Your task to perform on an android device: Search for Mexican restaurants on Maps Image 0: 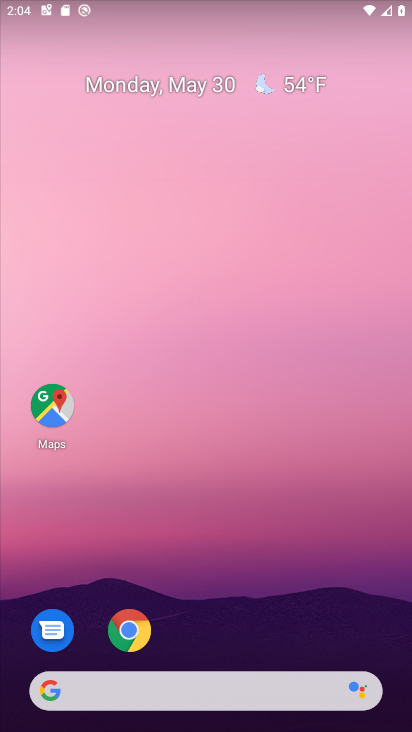
Step 0: press home button
Your task to perform on an android device: Search for Mexican restaurants on Maps Image 1: 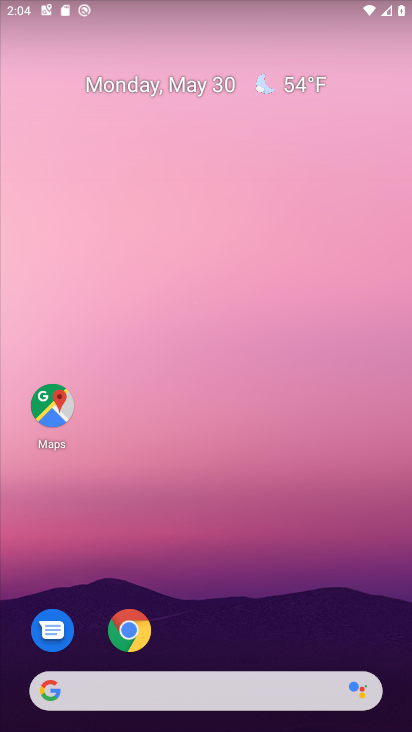
Step 1: click (50, 406)
Your task to perform on an android device: Search for Mexican restaurants on Maps Image 2: 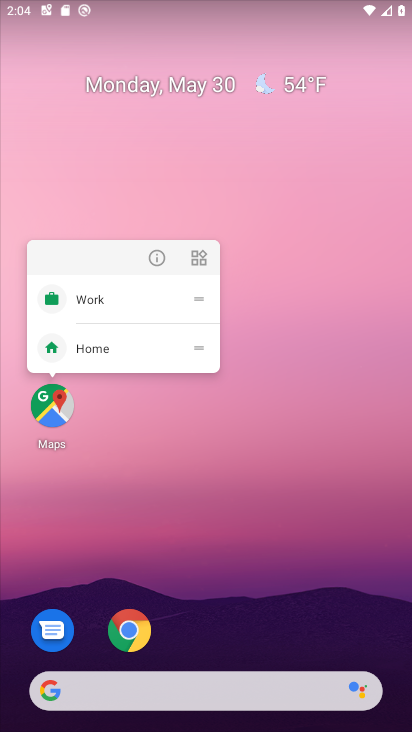
Step 2: click (54, 410)
Your task to perform on an android device: Search for Mexican restaurants on Maps Image 3: 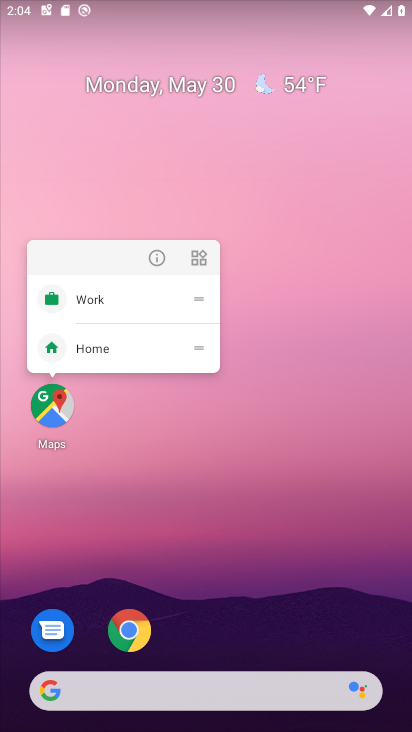
Step 3: click (52, 411)
Your task to perform on an android device: Search for Mexican restaurants on Maps Image 4: 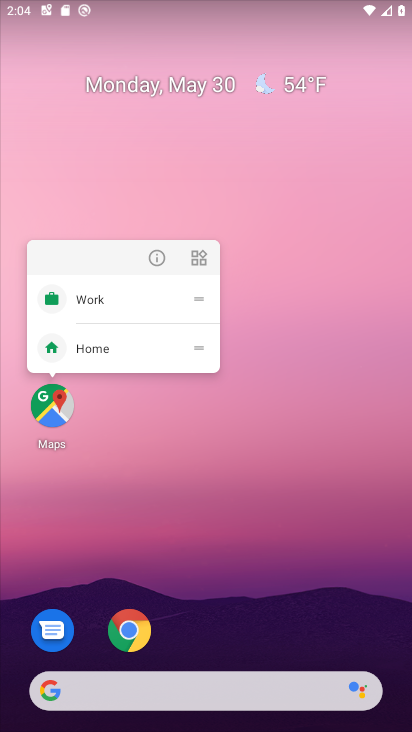
Step 4: click (42, 428)
Your task to perform on an android device: Search for Mexican restaurants on Maps Image 5: 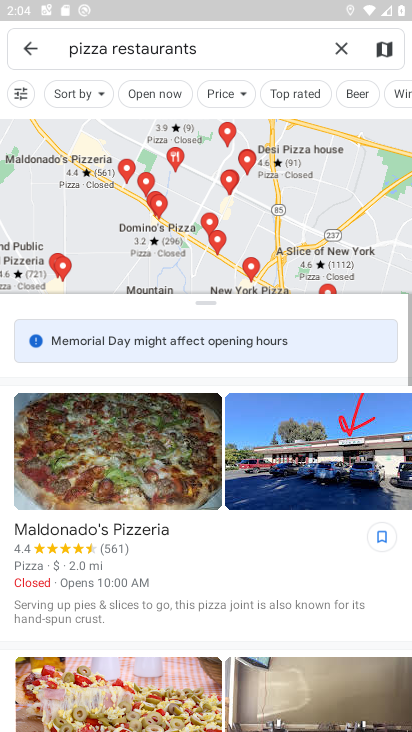
Step 5: click (343, 44)
Your task to perform on an android device: Search for Mexican restaurants on Maps Image 6: 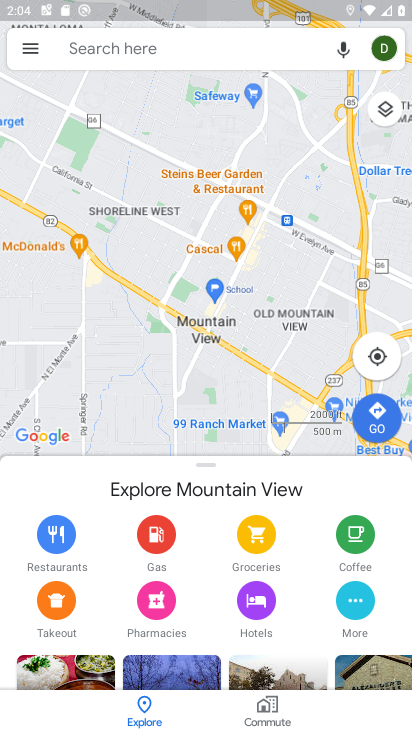
Step 6: click (217, 49)
Your task to perform on an android device: Search for Mexican restaurants on Maps Image 7: 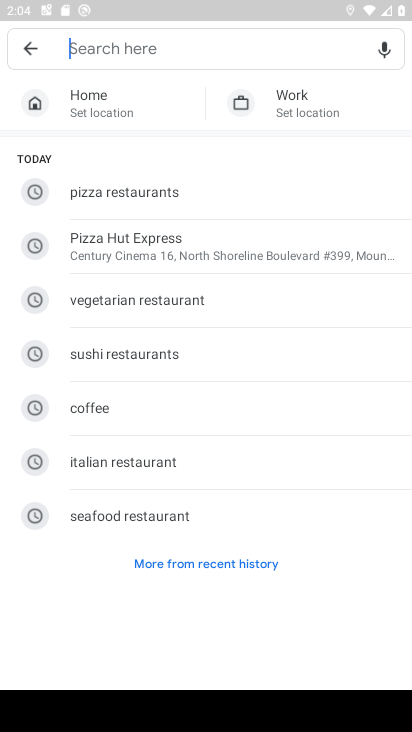
Step 7: type "mexican"
Your task to perform on an android device: Search for Mexican restaurants on Maps Image 8: 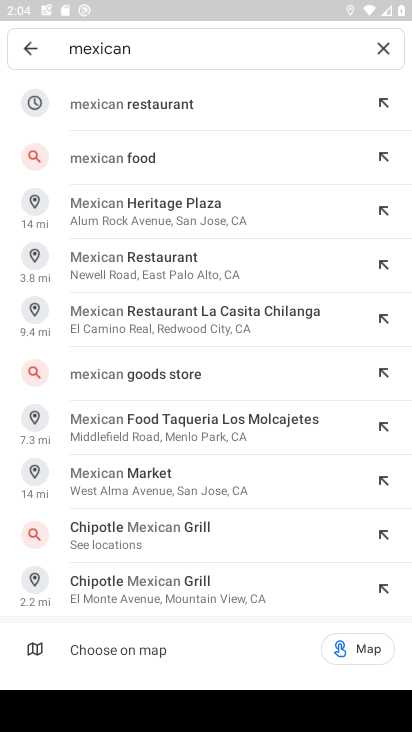
Step 8: click (194, 96)
Your task to perform on an android device: Search for Mexican restaurants on Maps Image 9: 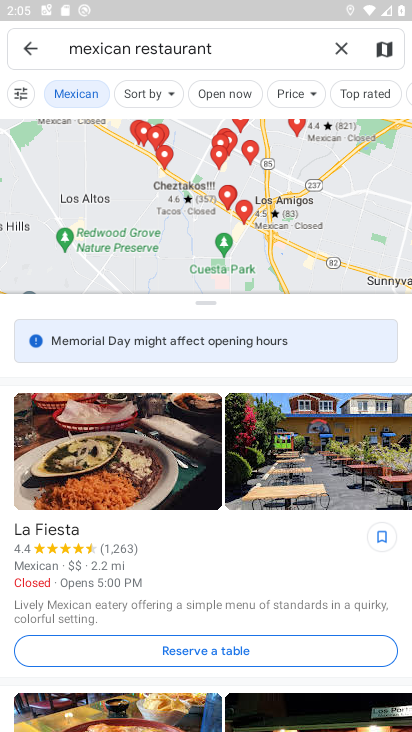
Step 9: task complete